Your task to perform on an android device: Show me the alarms in the clock app Image 0: 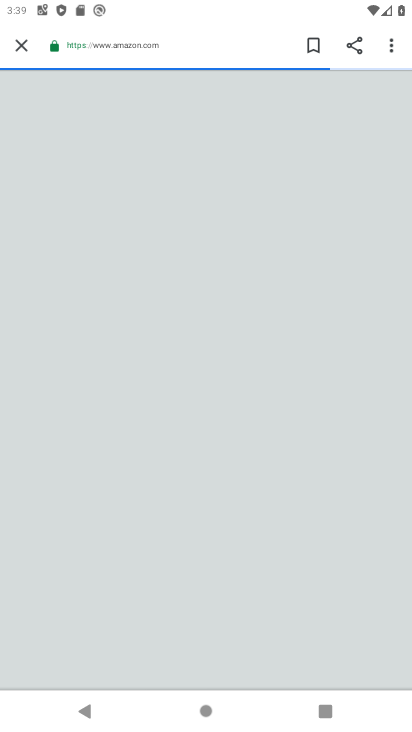
Step 0: press home button
Your task to perform on an android device: Show me the alarms in the clock app Image 1: 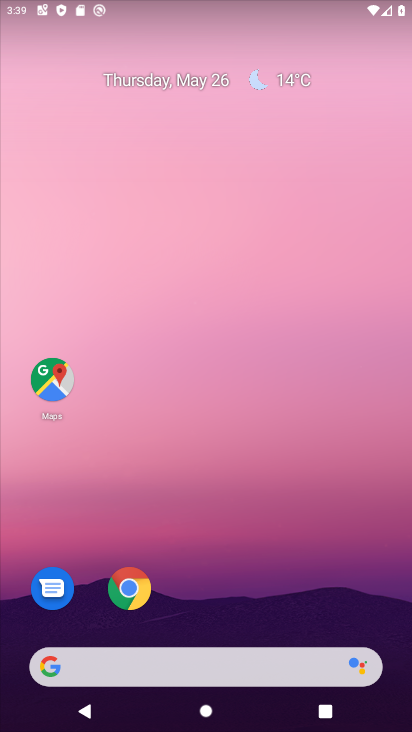
Step 1: drag from (253, 604) to (270, 82)
Your task to perform on an android device: Show me the alarms in the clock app Image 2: 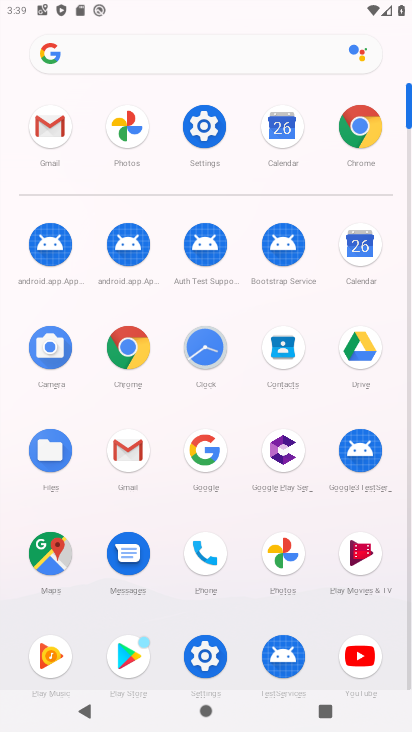
Step 2: click (224, 336)
Your task to perform on an android device: Show me the alarms in the clock app Image 3: 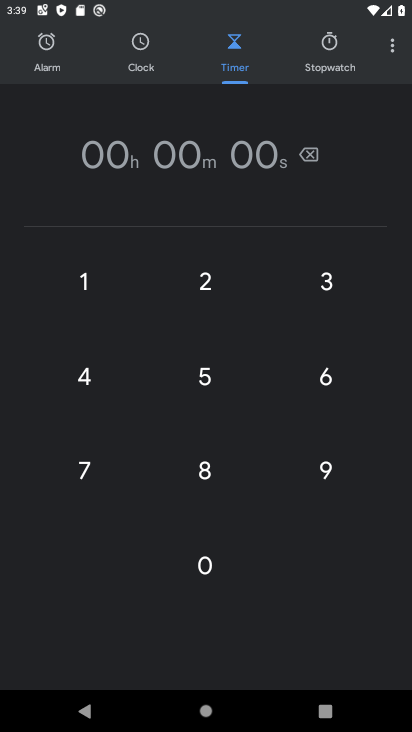
Step 3: click (392, 52)
Your task to perform on an android device: Show me the alarms in the clock app Image 4: 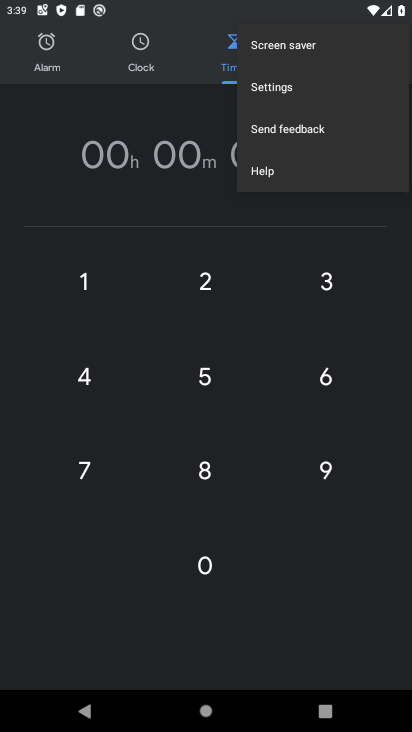
Step 4: click (42, 52)
Your task to perform on an android device: Show me the alarms in the clock app Image 5: 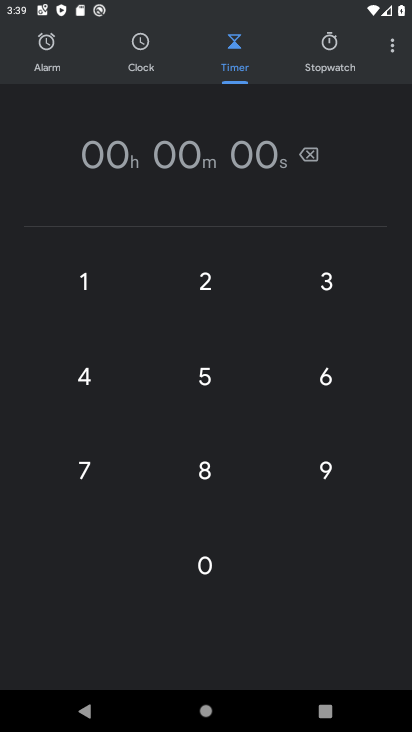
Step 5: click (42, 52)
Your task to perform on an android device: Show me the alarms in the clock app Image 6: 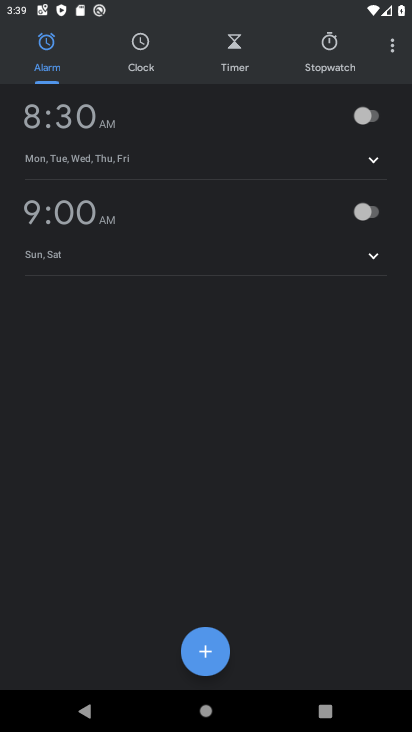
Step 6: task complete